Your task to perform on an android device: turn off javascript in the chrome app Image 0: 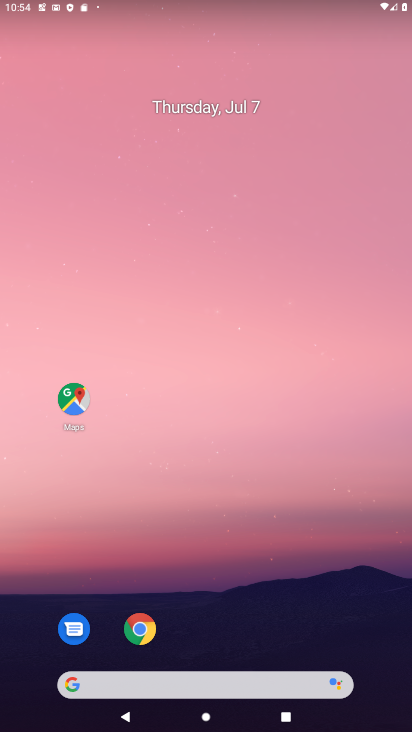
Step 0: drag from (294, 676) to (230, 102)
Your task to perform on an android device: turn off javascript in the chrome app Image 1: 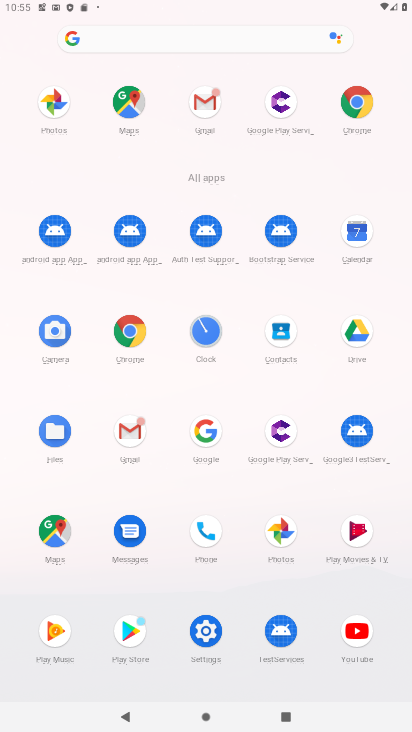
Step 1: click (363, 92)
Your task to perform on an android device: turn off javascript in the chrome app Image 2: 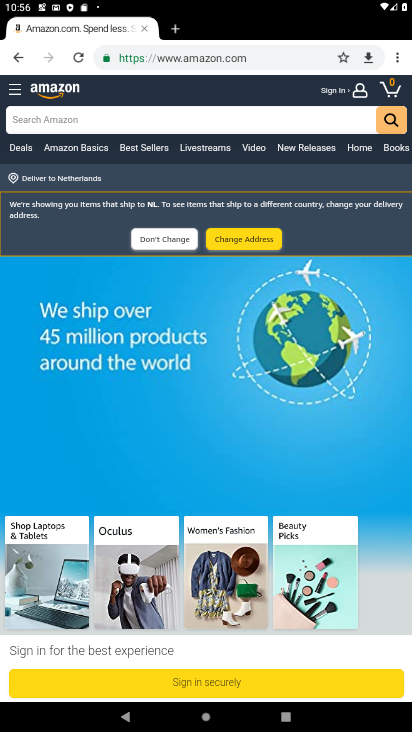
Step 2: drag from (398, 55) to (292, 384)
Your task to perform on an android device: turn off javascript in the chrome app Image 3: 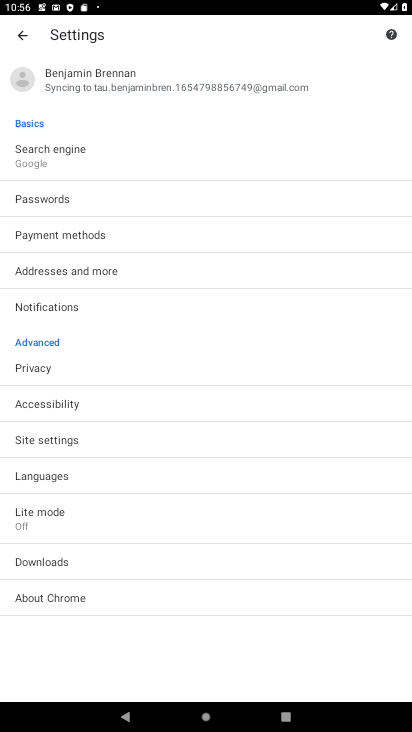
Step 3: click (21, 445)
Your task to perform on an android device: turn off javascript in the chrome app Image 4: 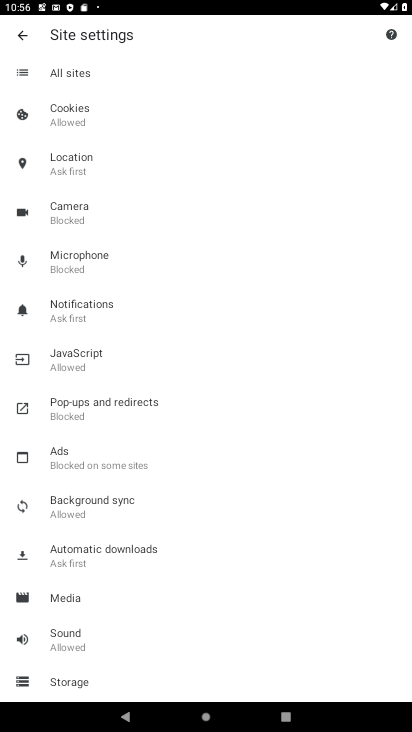
Step 4: drag from (90, 619) to (133, 414)
Your task to perform on an android device: turn off javascript in the chrome app Image 5: 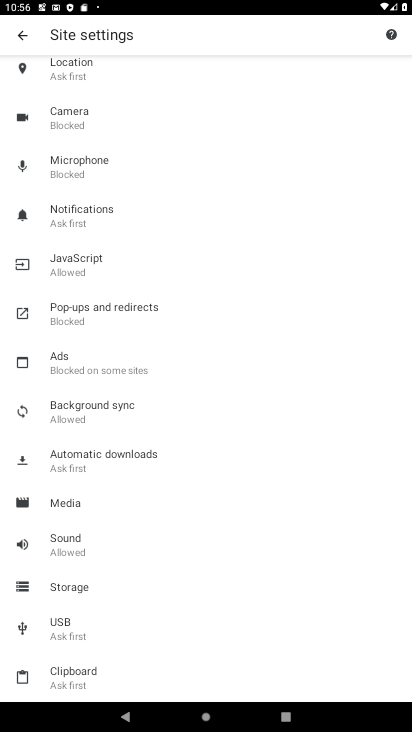
Step 5: click (127, 277)
Your task to perform on an android device: turn off javascript in the chrome app Image 6: 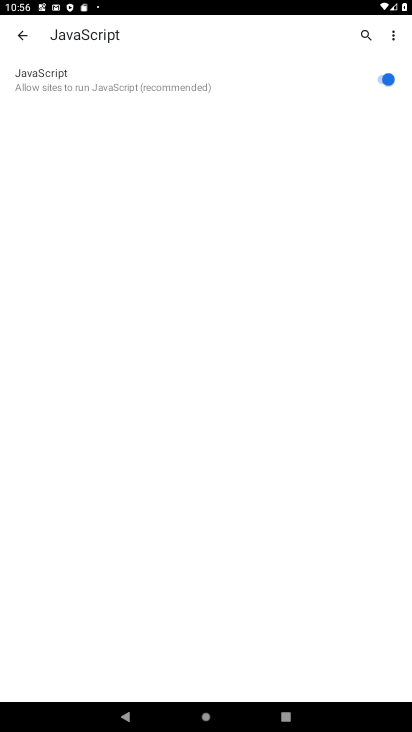
Step 6: click (241, 85)
Your task to perform on an android device: turn off javascript in the chrome app Image 7: 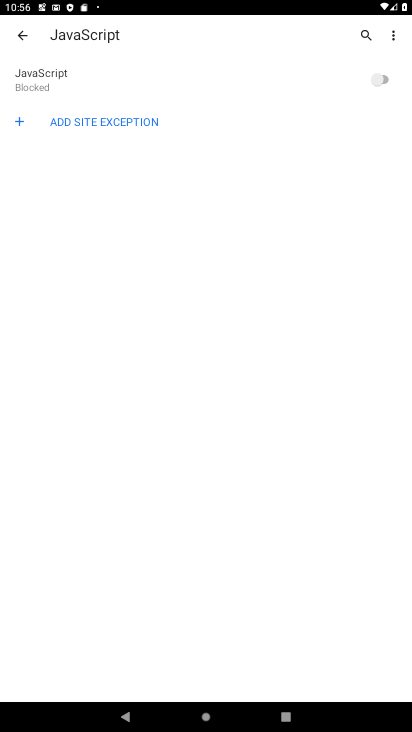
Step 7: task complete